Your task to perform on an android device: turn on the 12-hour format for clock Image 0: 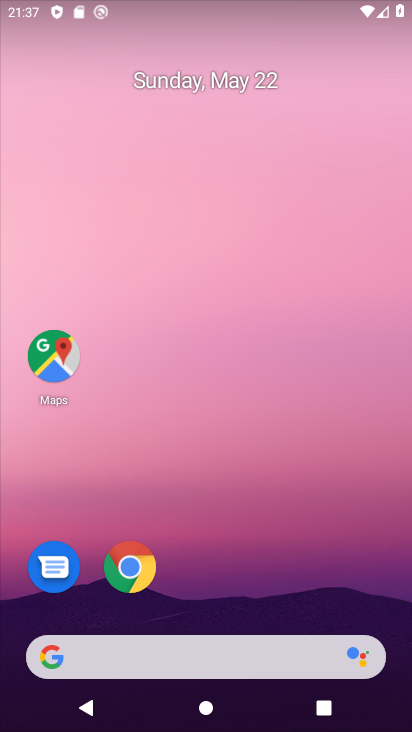
Step 0: drag from (124, 637) to (123, 286)
Your task to perform on an android device: turn on the 12-hour format for clock Image 1: 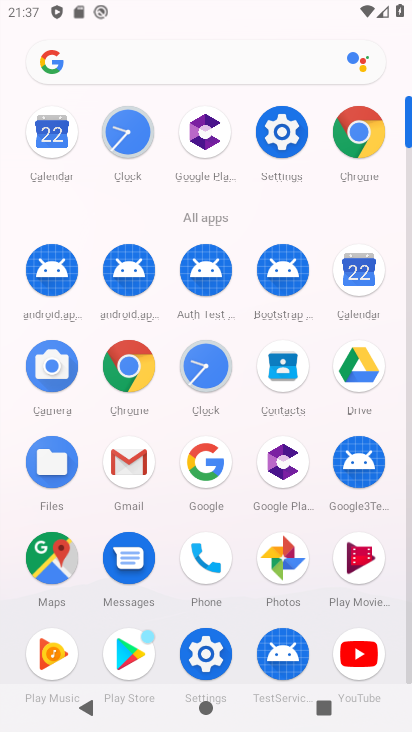
Step 1: click (202, 357)
Your task to perform on an android device: turn on the 12-hour format for clock Image 2: 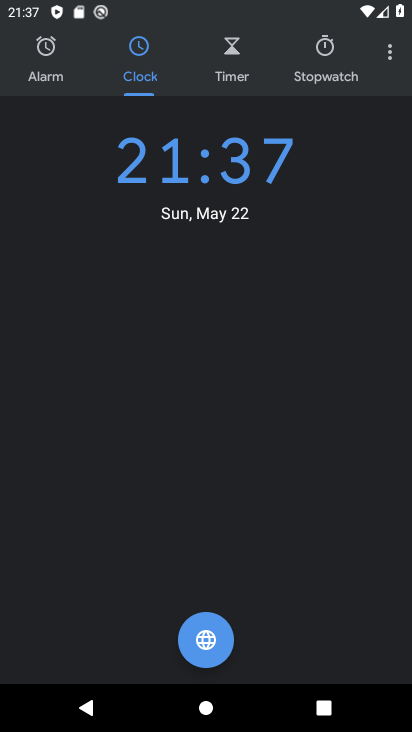
Step 2: click (392, 51)
Your task to perform on an android device: turn on the 12-hour format for clock Image 3: 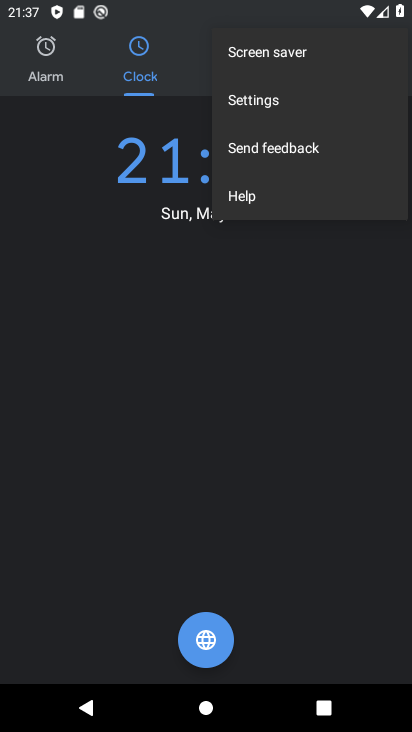
Step 3: click (276, 115)
Your task to perform on an android device: turn on the 12-hour format for clock Image 4: 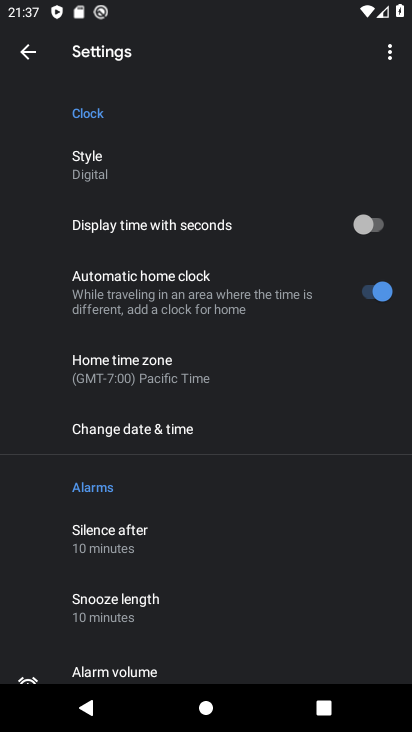
Step 4: click (131, 435)
Your task to perform on an android device: turn on the 12-hour format for clock Image 5: 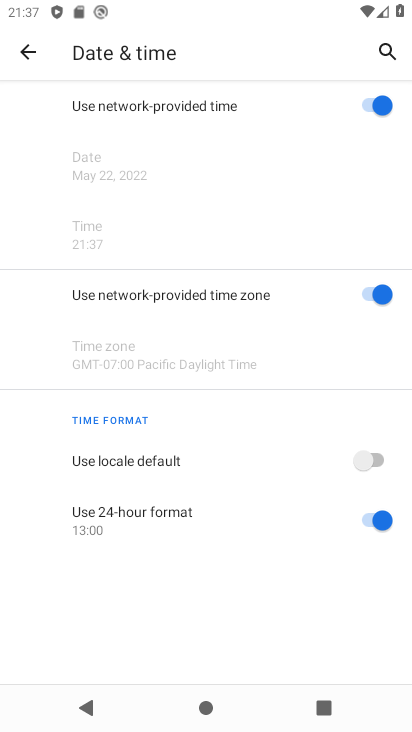
Step 5: task complete